Your task to perform on an android device: What's the weather today? Image 0: 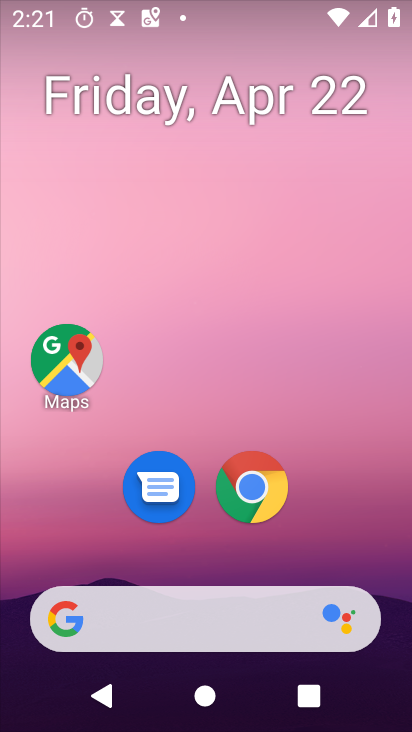
Step 0: press home button
Your task to perform on an android device: What's the weather today? Image 1: 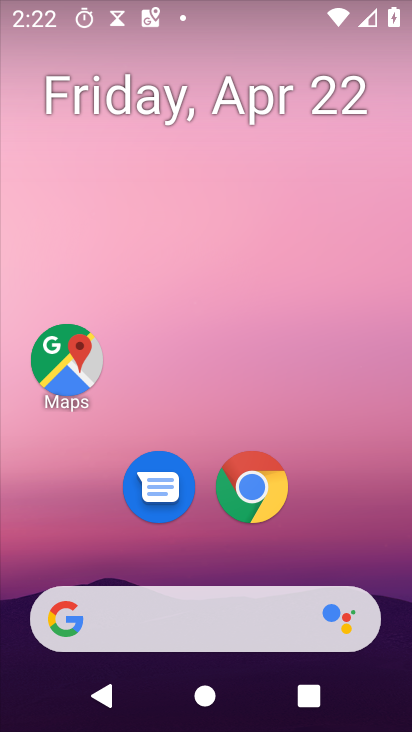
Step 1: drag from (5, 222) to (405, 169)
Your task to perform on an android device: What's the weather today? Image 2: 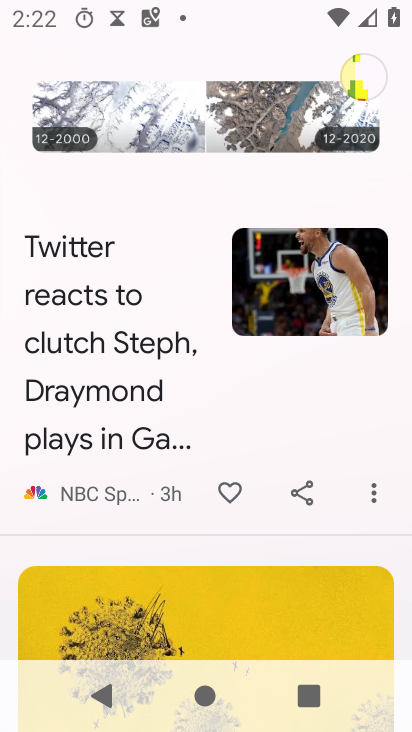
Step 2: drag from (189, 220) to (147, 589)
Your task to perform on an android device: What's the weather today? Image 3: 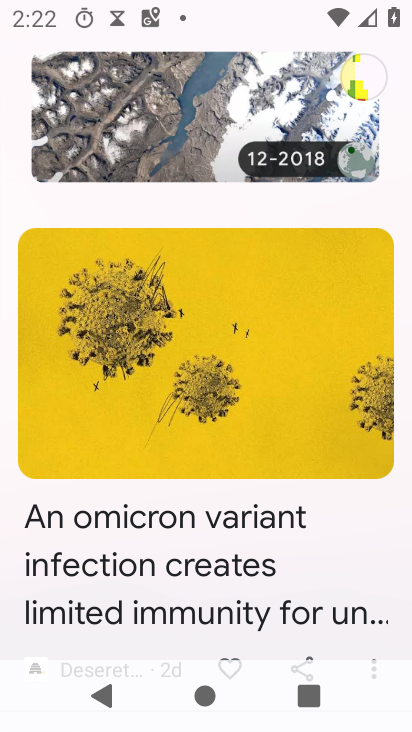
Step 3: drag from (197, 108) to (189, 548)
Your task to perform on an android device: What's the weather today? Image 4: 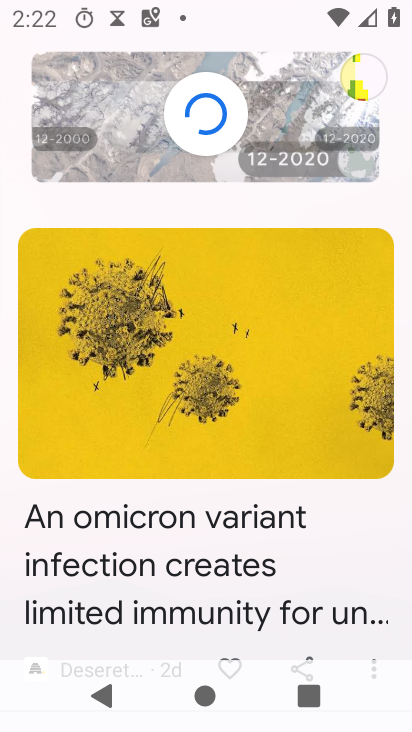
Step 4: drag from (192, 534) to (271, 177)
Your task to perform on an android device: What's the weather today? Image 5: 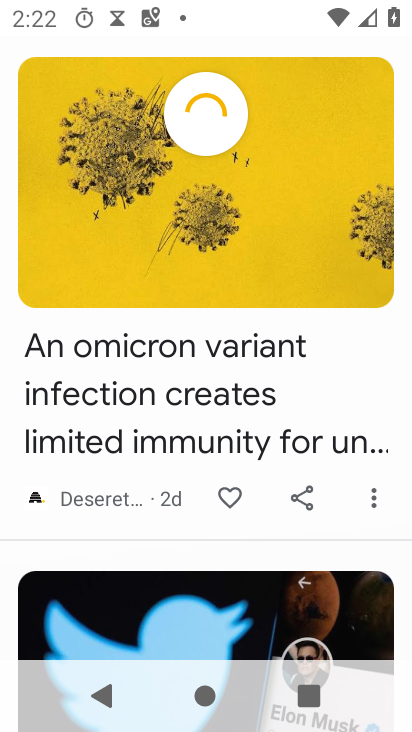
Step 5: drag from (160, 480) to (228, 228)
Your task to perform on an android device: What's the weather today? Image 6: 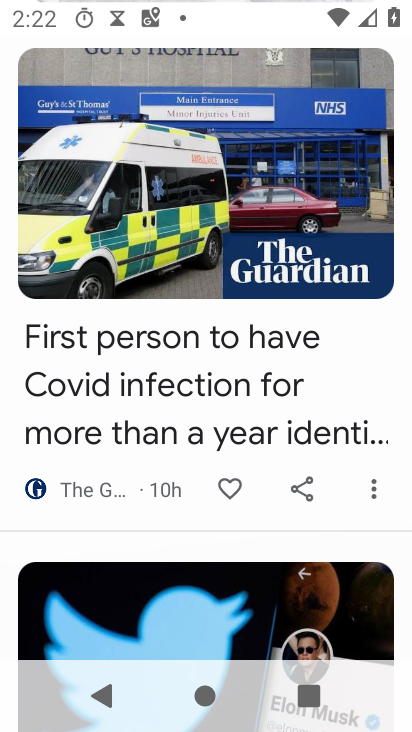
Step 6: drag from (181, 211) to (151, 549)
Your task to perform on an android device: What's the weather today? Image 7: 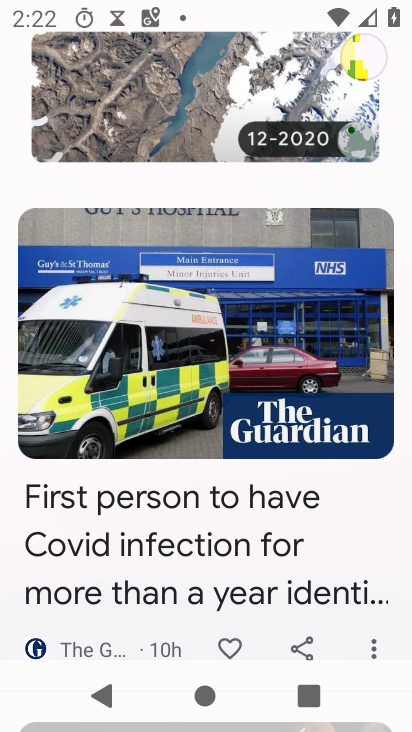
Step 7: press home button
Your task to perform on an android device: What's the weather today? Image 8: 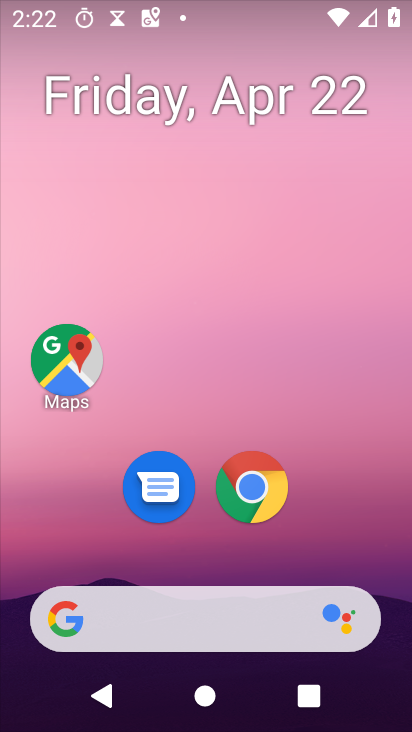
Step 8: drag from (377, 388) to (4, 377)
Your task to perform on an android device: What's the weather today? Image 9: 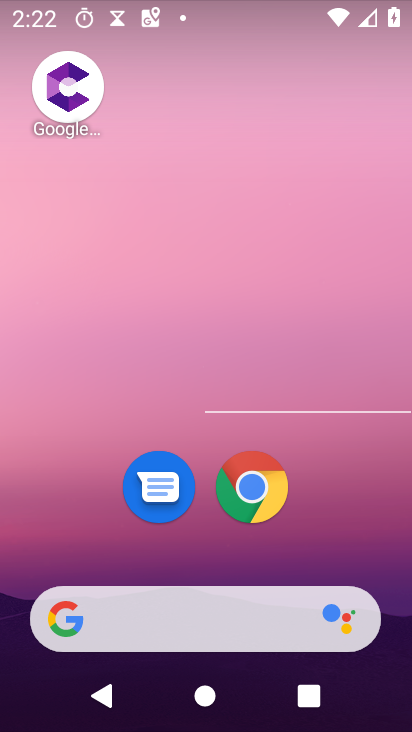
Step 9: drag from (377, 310) to (0, 333)
Your task to perform on an android device: What's the weather today? Image 10: 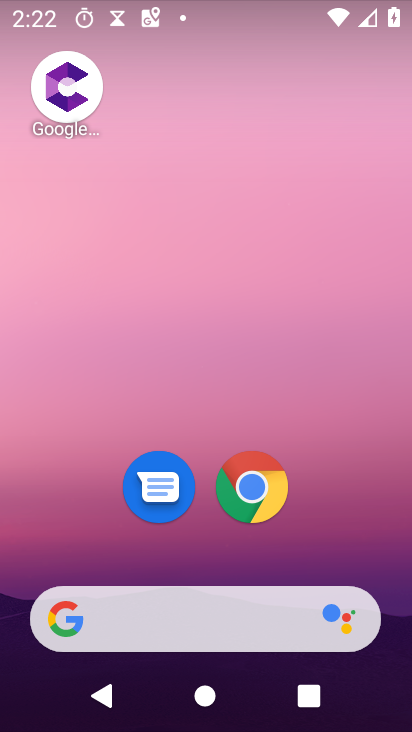
Step 10: drag from (167, 601) to (266, 109)
Your task to perform on an android device: What's the weather today? Image 11: 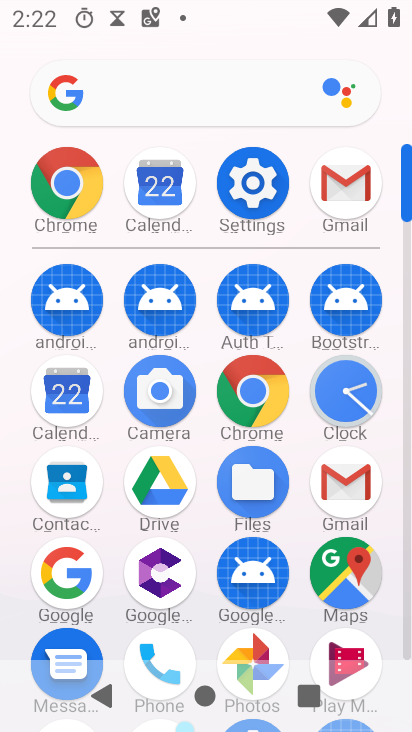
Step 11: click (80, 575)
Your task to perform on an android device: What's the weather today? Image 12: 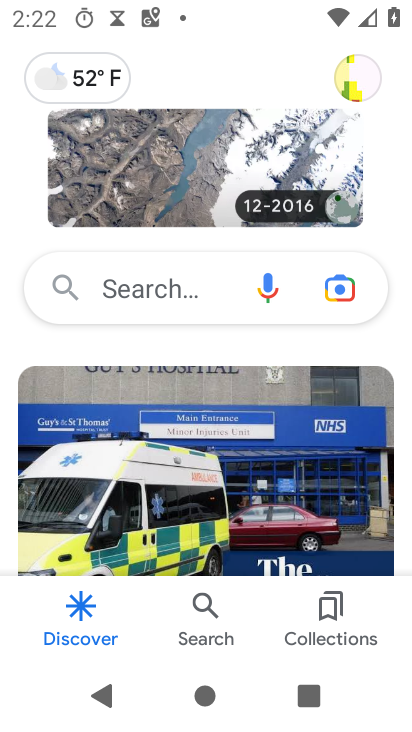
Step 12: click (164, 302)
Your task to perform on an android device: What's the weather today? Image 13: 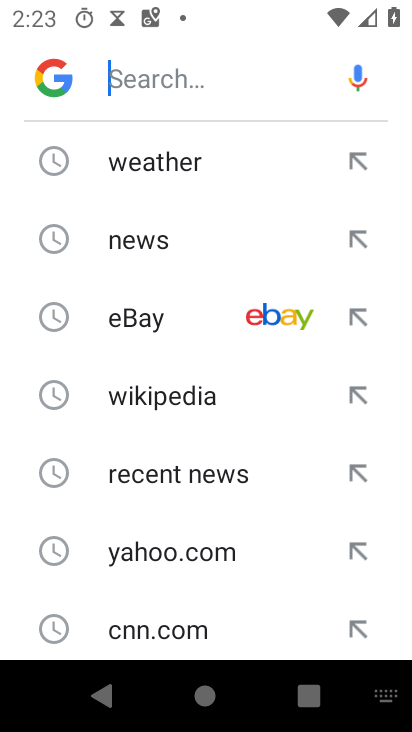
Step 13: click (172, 152)
Your task to perform on an android device: What's the weather today? Image 14: 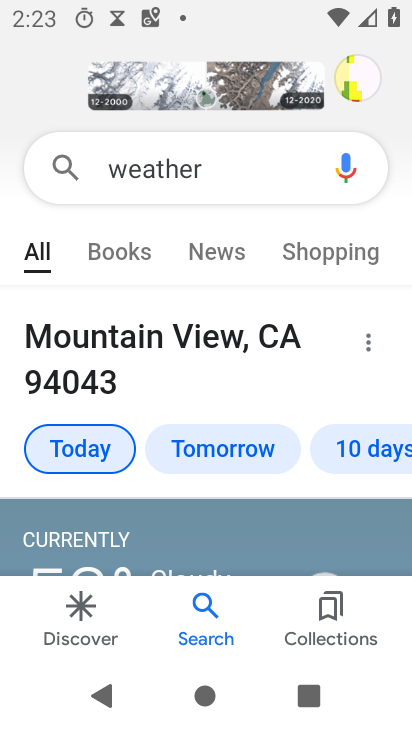
Step 14: task complete